Your task to perform on an android device: change notification settings in the gmail app Image 0: 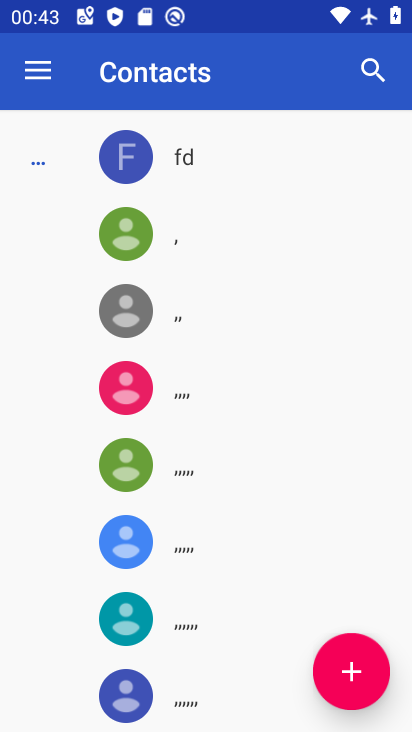
Step 0: press home button
Your task to perform on an android device: change notification settings in the gmail app Image 1: 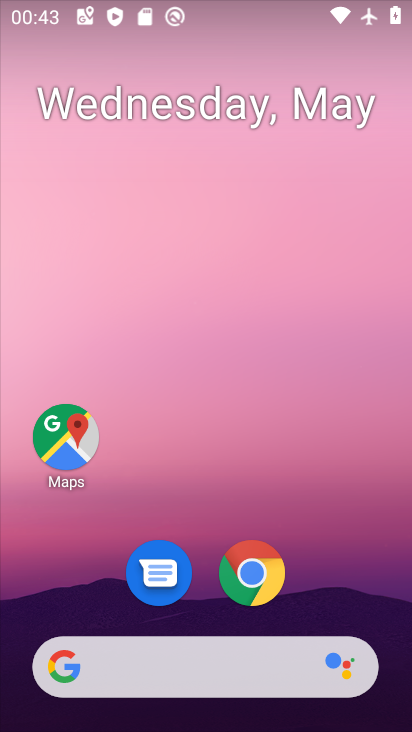
Step 1: drag from (380, 617) to (211, 273)
Your task to perform on an android device: change notification settings in the gmail app Image 2: 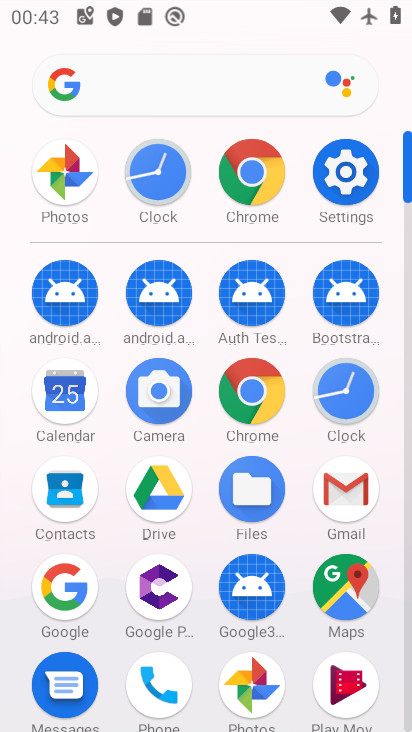
Step 2: click (336, 492)
Your task to perform on an android device: change notification settings in the gmail app Image 3: 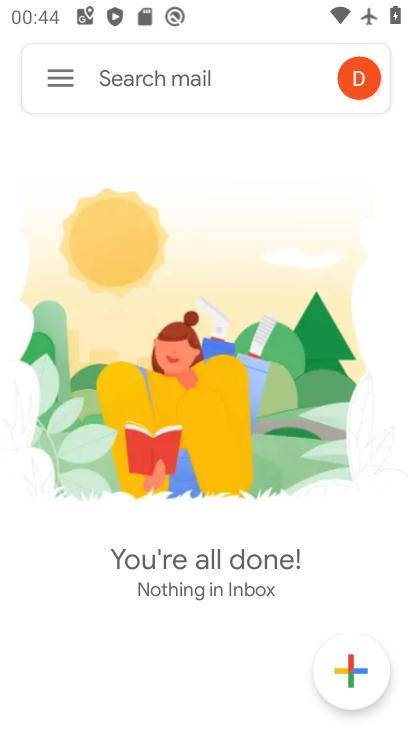
Step 3: click (60, 70)
Your task to perform on an android device: change notification settings in the gmail app Image 4: 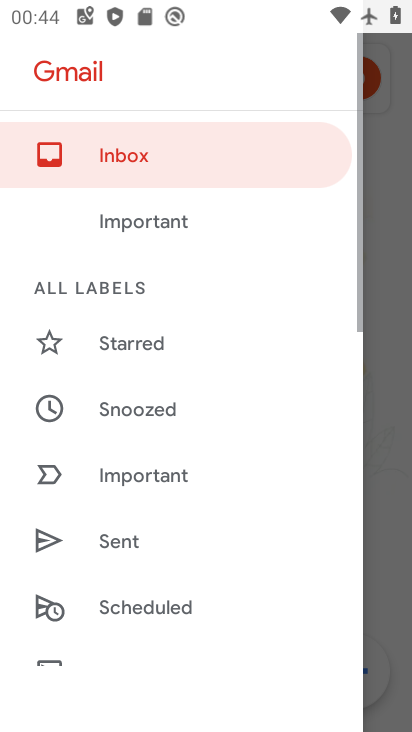
Step 4: drag from (177, 623) to (221, 272)
Your task to perform on an android device: change notification settings in the gmail app Image 5: 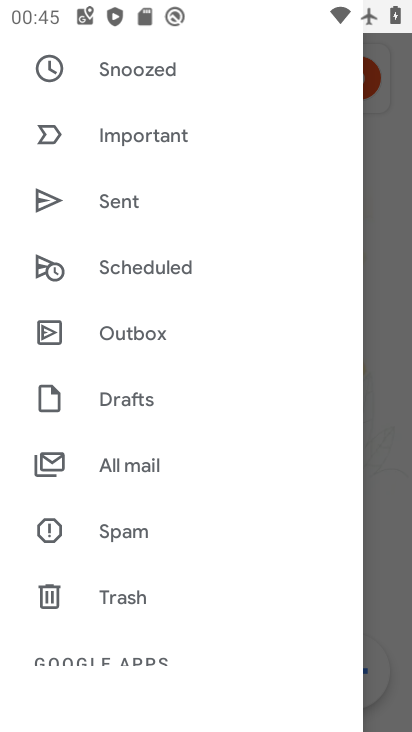
Step 5: drag from (194, 619) to (211, 308)
Your task to perform on an android device: change notification settings in the gmail app Image 6: 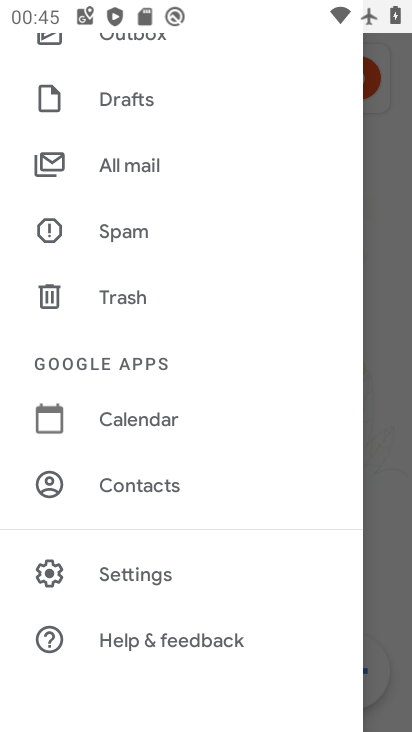
Step 6: click (186, 566)
Your task to perform on an android device: change notification settings in the gmail app Image 7: 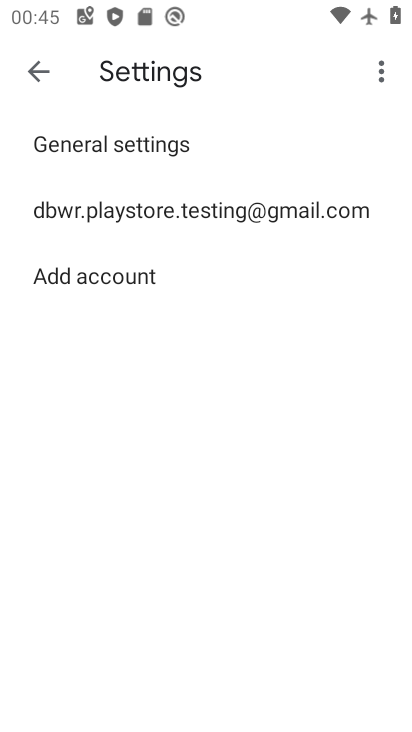
Step 7: click (187, 188)
Your task to perform on an android device: change notification settings in the gmail app Image 8: 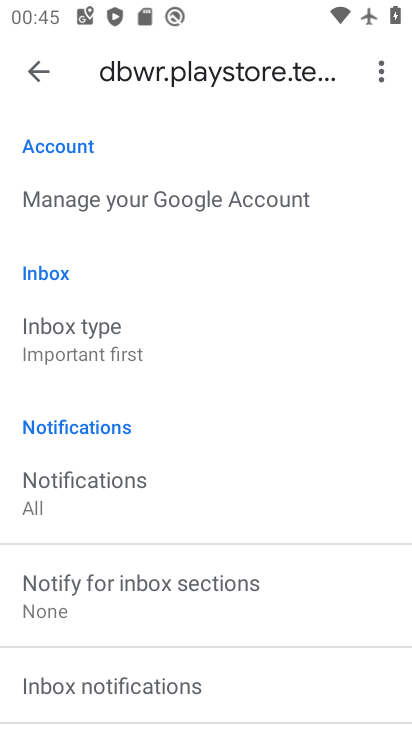
Step 8: click (138, 494)
Your task to perform on an android device: change notification settings in the gmail app Image 9: 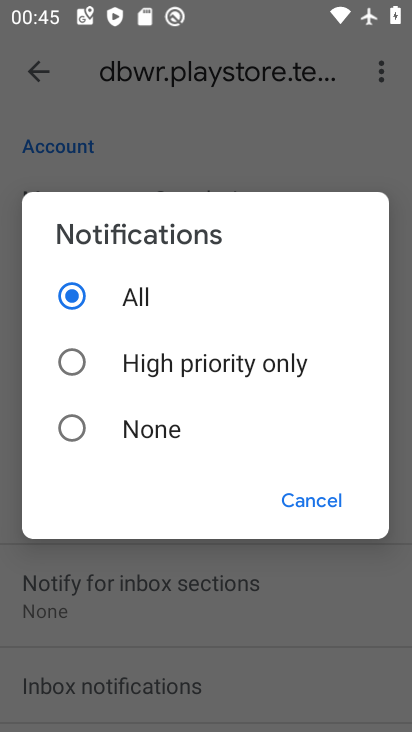
Step 9: click (254, 361)
Your task to perform on an android device: change notification settings in the gmail app Image 10: 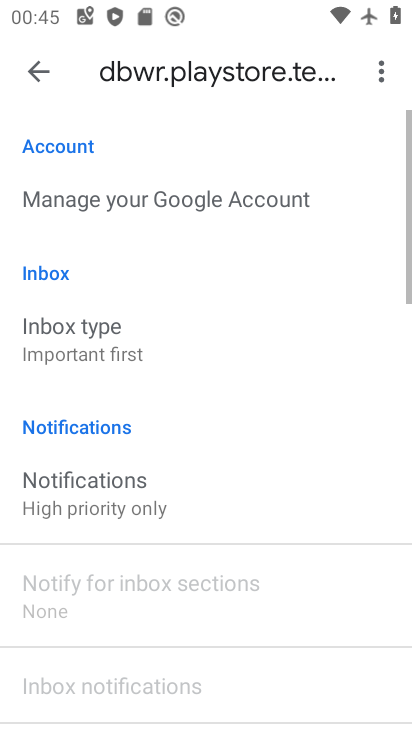
Step 10: task complete